Your task to perform on an android device: Open the calendar app, open the side menu, and click the "Day" option Image 0: 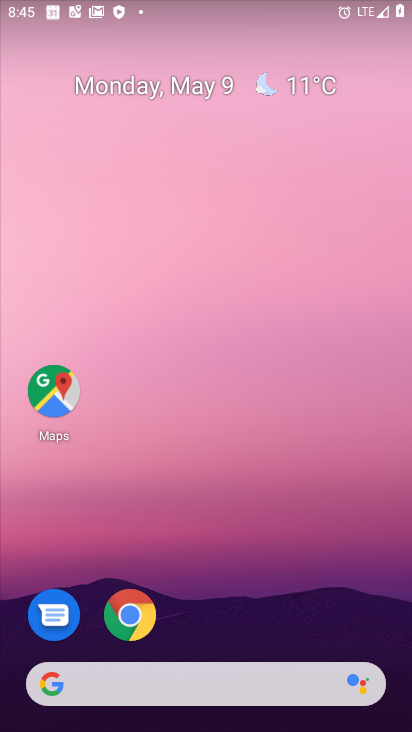
Step 0: click (150, 89)
Your task to perform on an android device: Open the calendar app, open the side menu, and click the "Day" option Image 1: 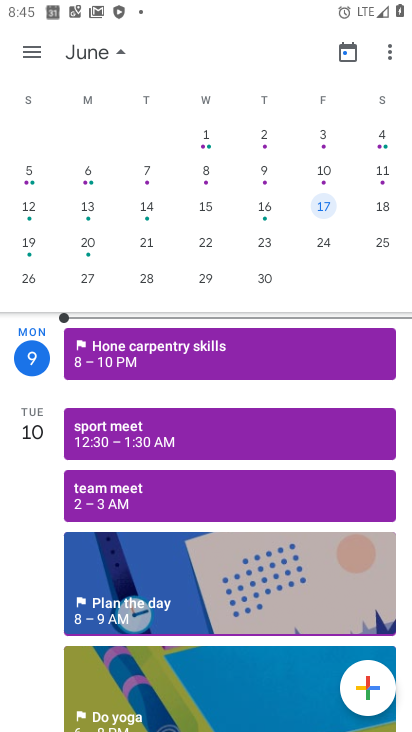
Step 1: click (37, 47)
Your task to perform on an android device: Open the calendar app, open the side menu, and click the "Day" option Image 2: 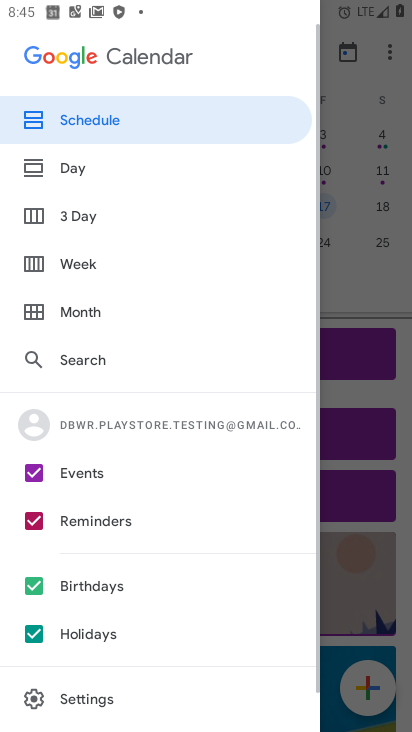
Step 2: click (150, 172)
Your task to perform on an android device: Open the calendar app, open the side menu, and click the "Day" option Image 3: 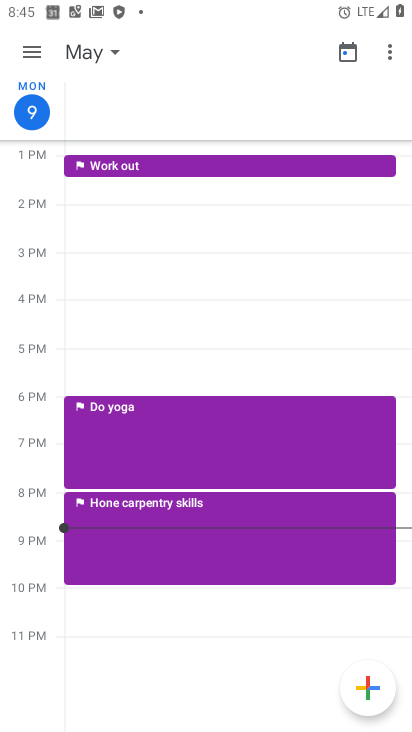
Step 3: task complete